Your task to perform on an android device: Open battery settings Image 0: 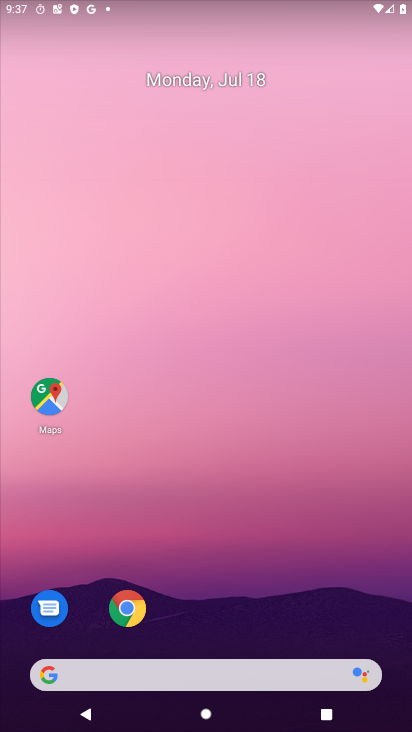
Step 0: drag from (220, 608) to (239, 52)
Your task to perform on an android device: Open battery settings Image 1: 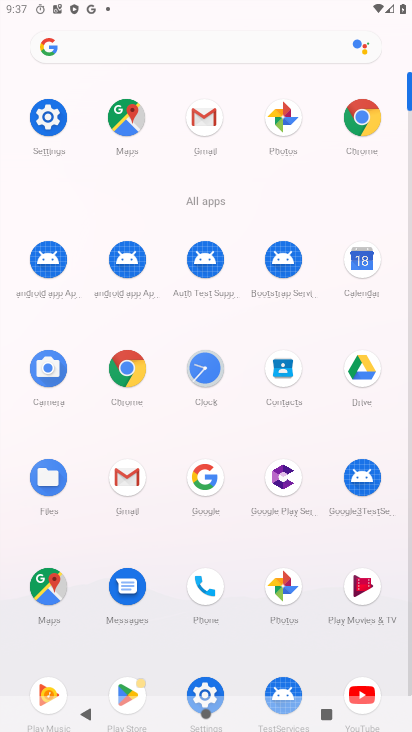
Step 1: click (52, 123)
Your task to perform on an android device: Open battery settings Image 2: 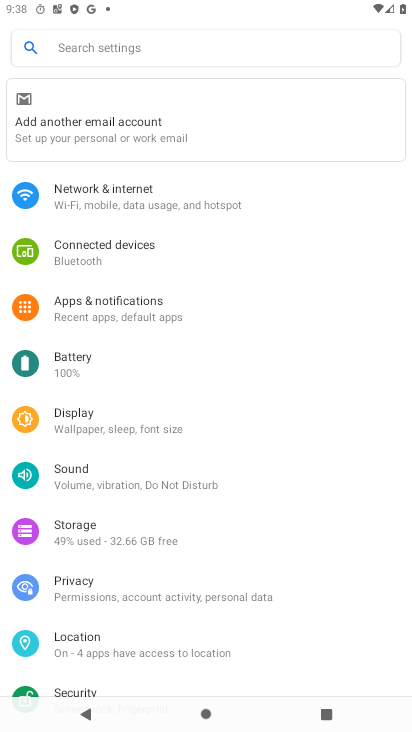
Step 2: click (64, 361)
Your task to perform on an android device: Open battery settings Image 3: 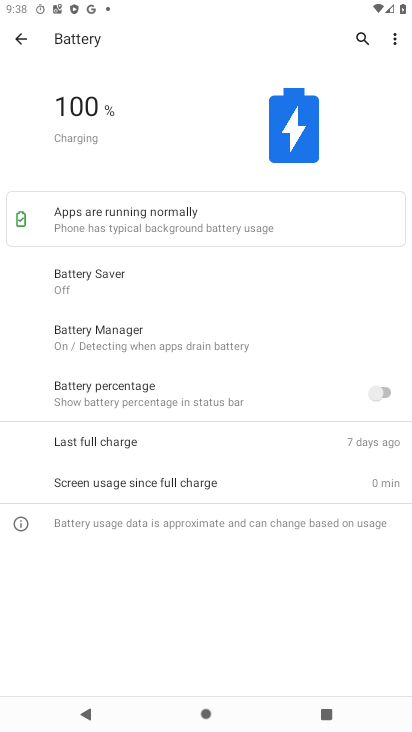
Step 3: task complete